Your task to perform on an android device: Open Reddit.com Image 0: 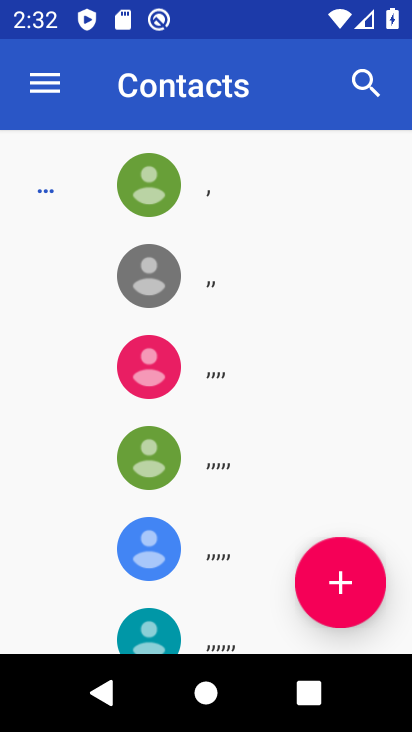
Step 0: press home button
Your task to perform on an android device: Open Reddit.com Image 1: 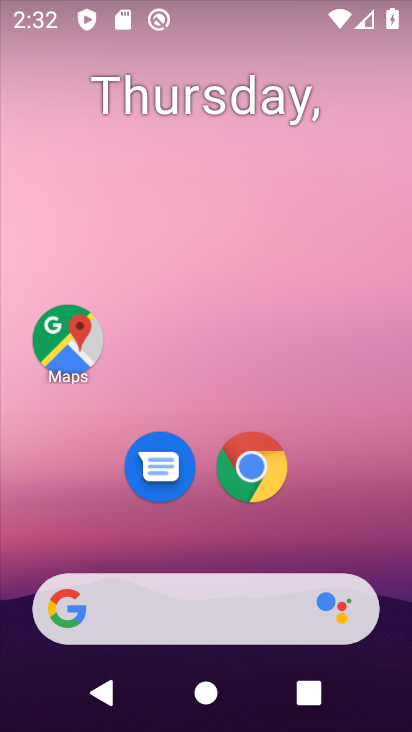
Step 1: click (245, 468)
Your task to perform on an android device: Open Reddit.com Image 2: 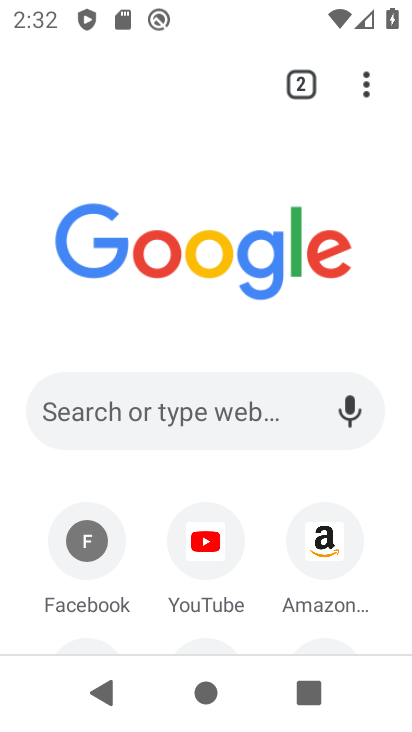
Step 2: click (194, 420)
Your task to perform on an android device: Open Reddit.com Image 3: 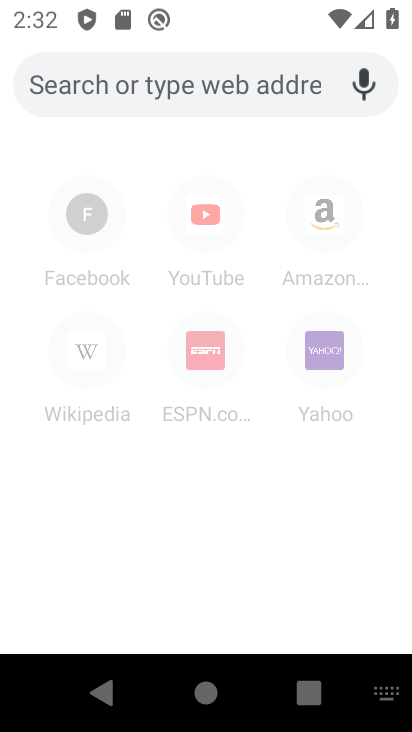
Step 3: type "reddit.com"
Your task to perform on an android device: Open Reddit.com Image 4: 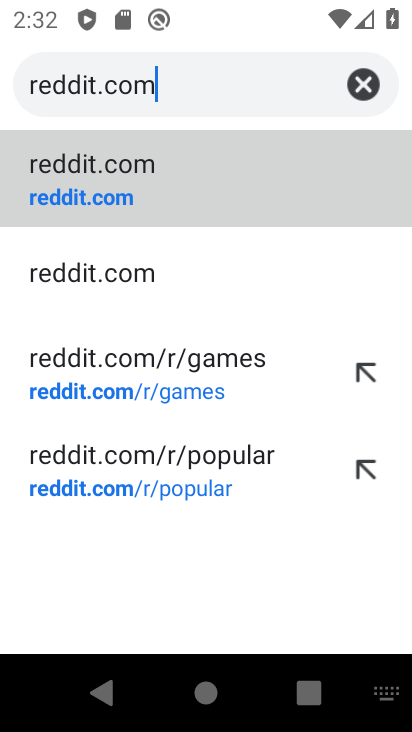
Step 4: click (185, 163)
Your task to perform on an android device: Open Reddit.com Image 5: 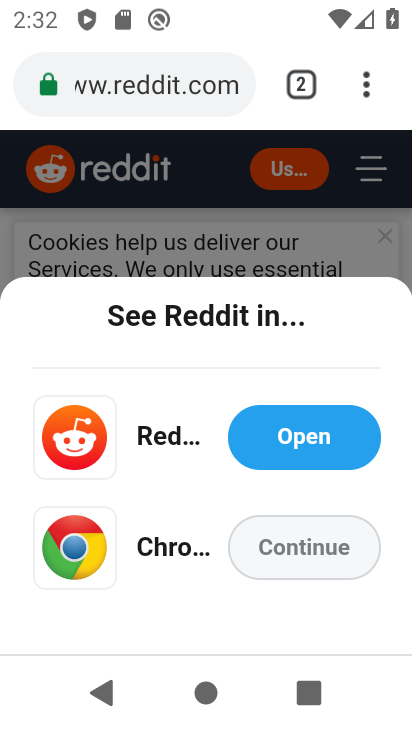
Step 5: task complete